Your task to perform on an android device: What's the weather going to be tomorrow? Image 0: 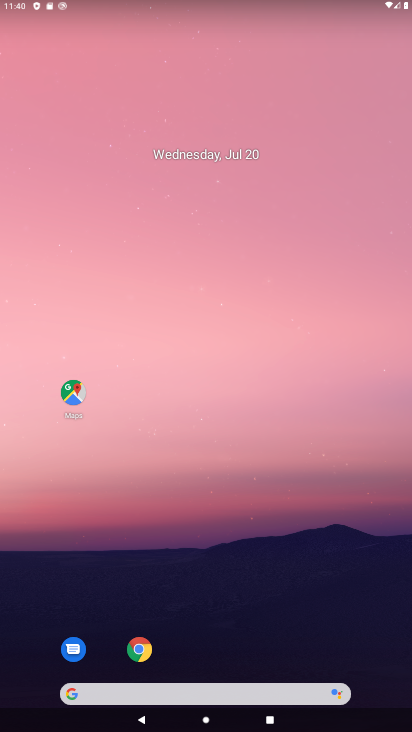
Step 0: drag from (283, 633) to (301, 77)
Your task to perform on an android device: What's the weather going to be tomorrow? Image 1: 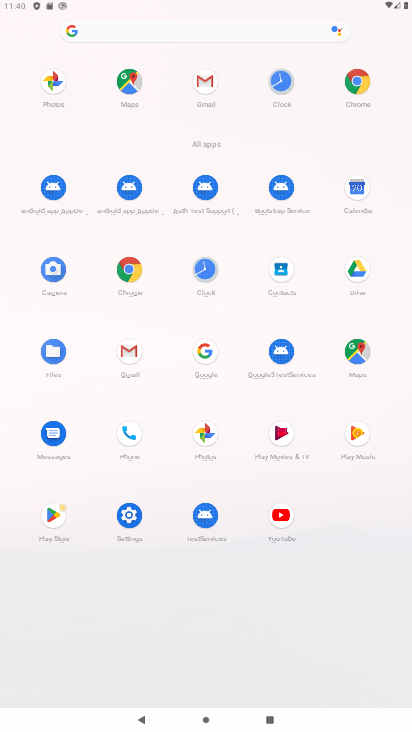
Step 1: click (125, 35)
Your task to perform on an android device: What's the weather going to be tomorrow? Image 2: 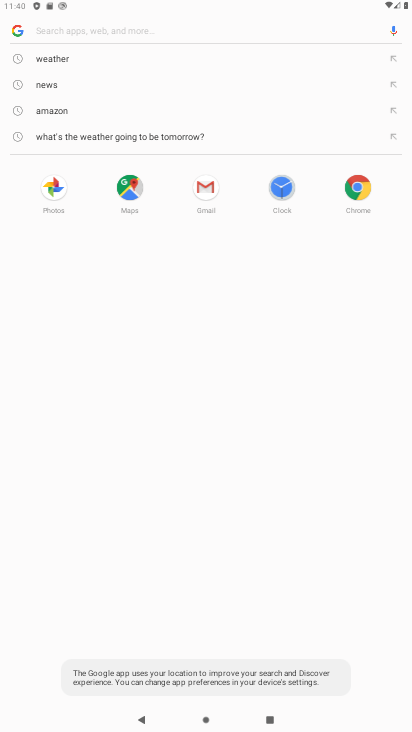
Step 2: type "weather"
Your task to perform on an android device: What's the weather going to be tomorrow? Image 3: 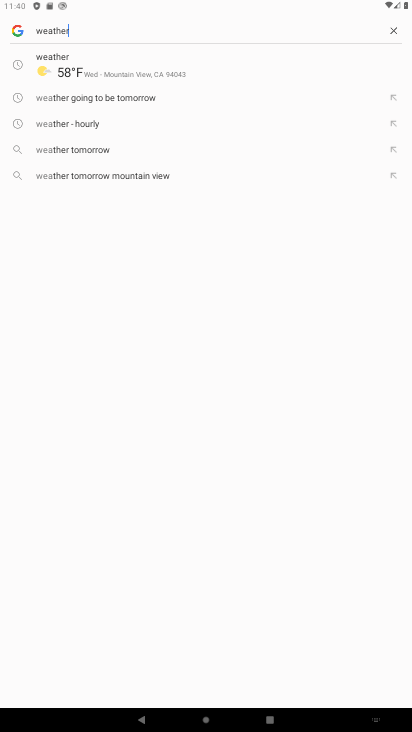
Step 3: task complete